Your task to perform on an android device: How big is a blue whale? Image 0: 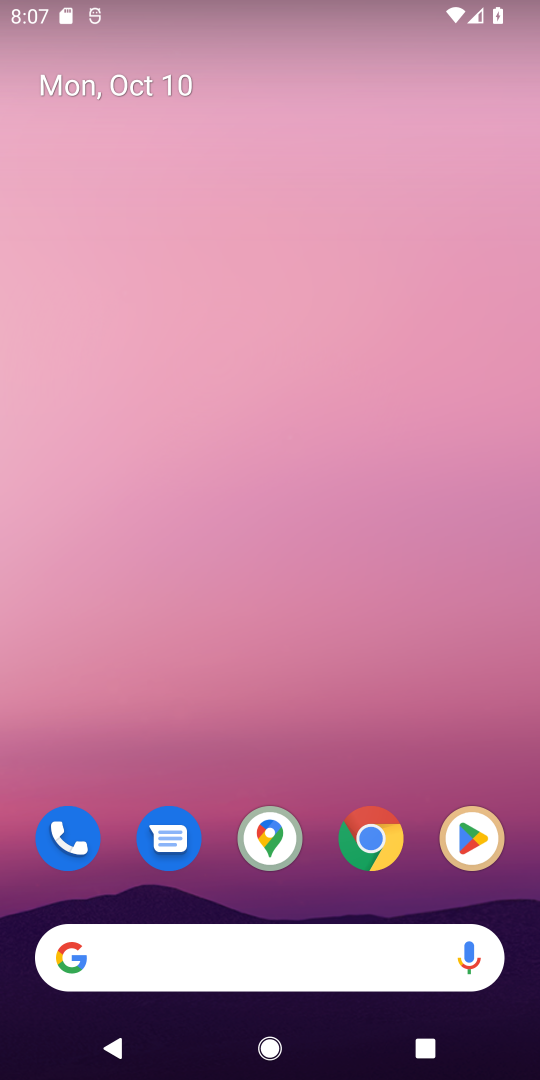
Step 0: click (371, 840)
Your task to perform on an android device: How big is a blue whale? Image 1: 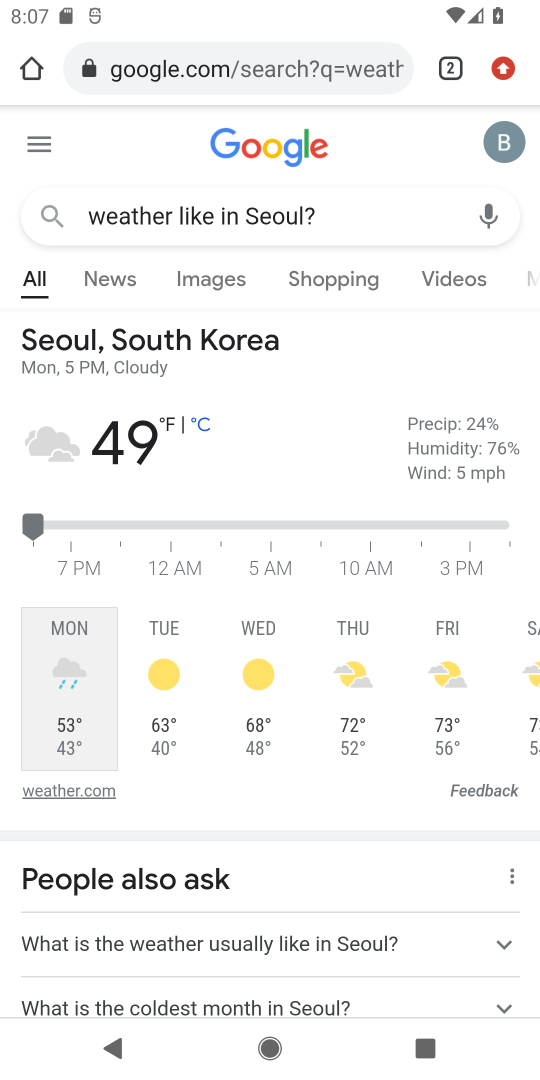
Step 1: click (235, 44)
Your task to perform on an android device: How big is a blue whale? Image 2: 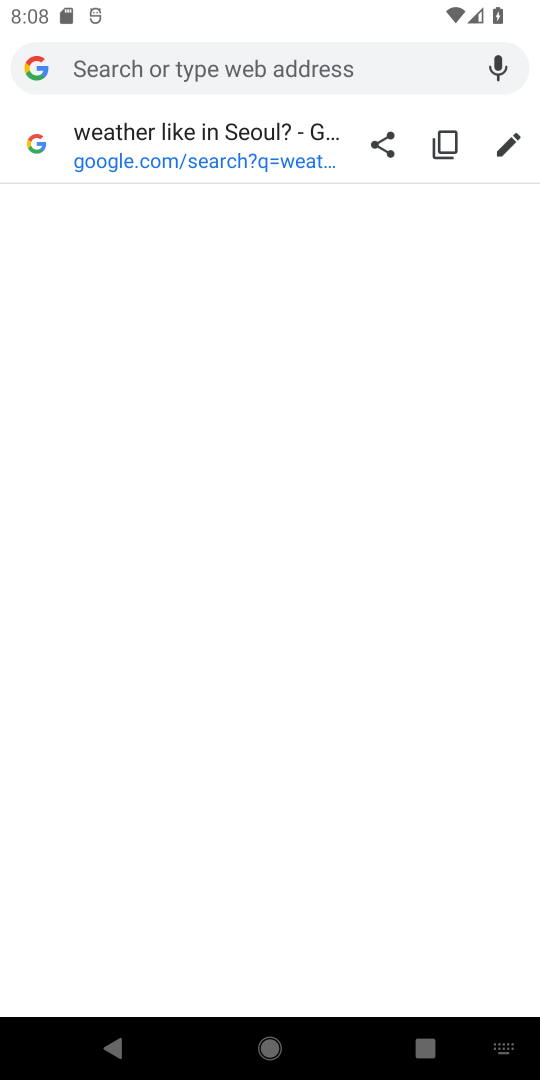
Step 2: type "How big is a blue whale?"
Your task to perform on an android device: How big is a blue whale? Image 3: 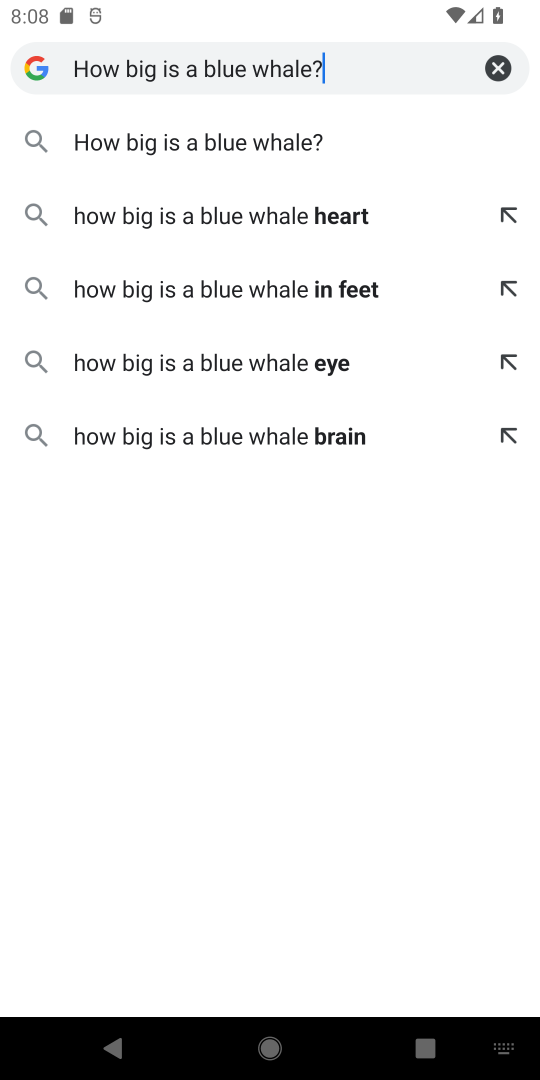
Step 3: click (133, 141)
Your task to perform on an android device: How big is a blue whale? Image 4: 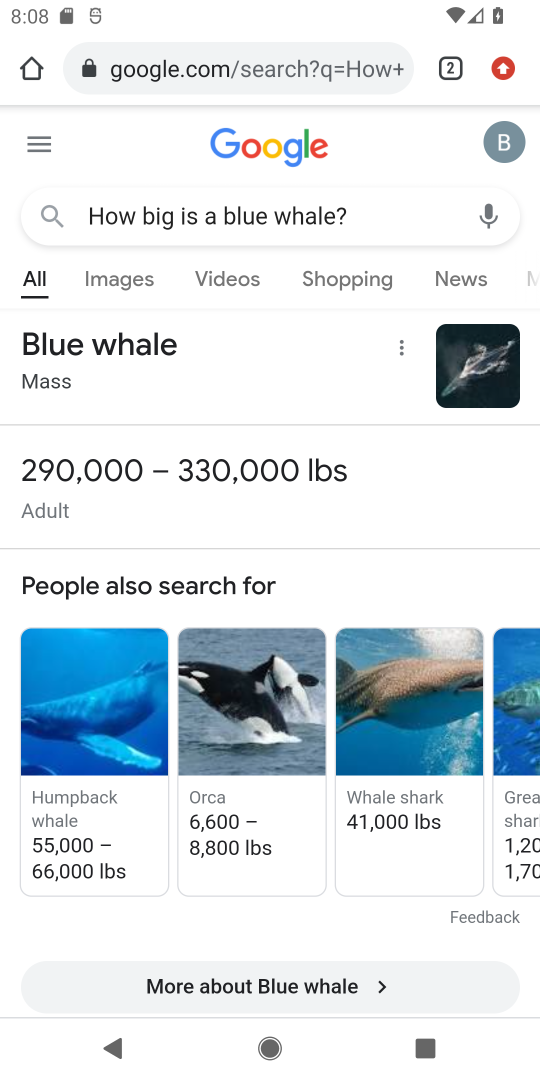
Step 4: task complete